Your task to perform on an android device: Open privacy settings Image 0: 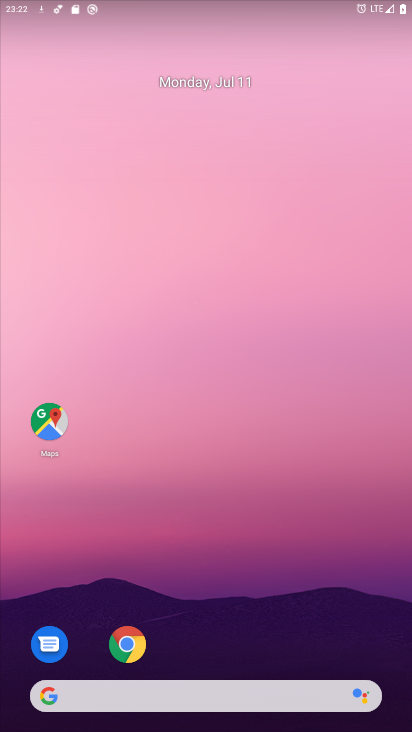
Step 0: drag from (208, 624) to (222, 192)
Your task to perform on an android device: Open privacy settings Image 1: 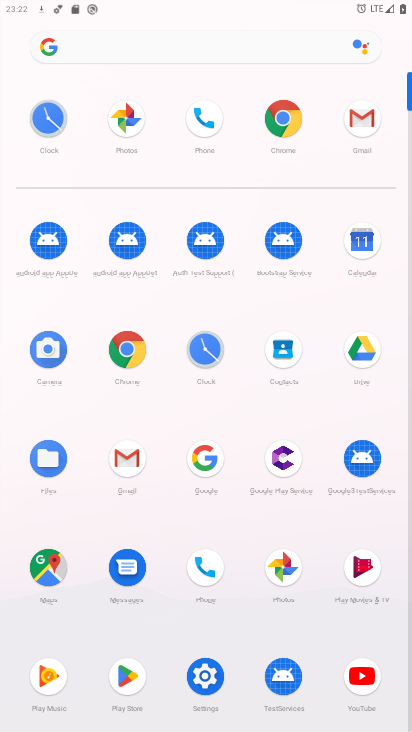
Step 1: click (215, 675)
Your task to perform on an android device: Open privacy settings Image 2: 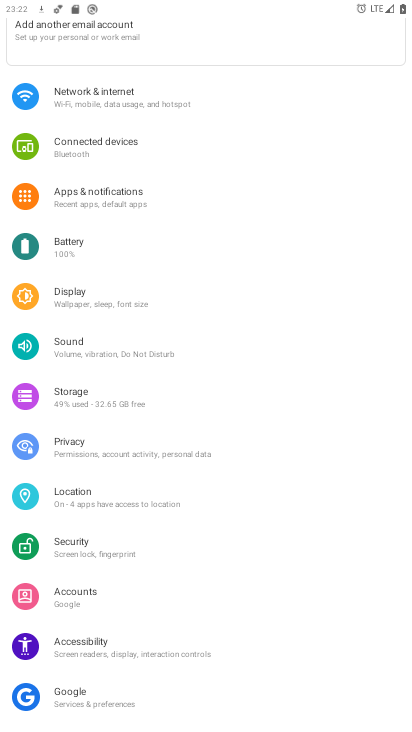
Step 2: click (80, 442)
Your task to perform on an android device: Open privacy settings Image 3: 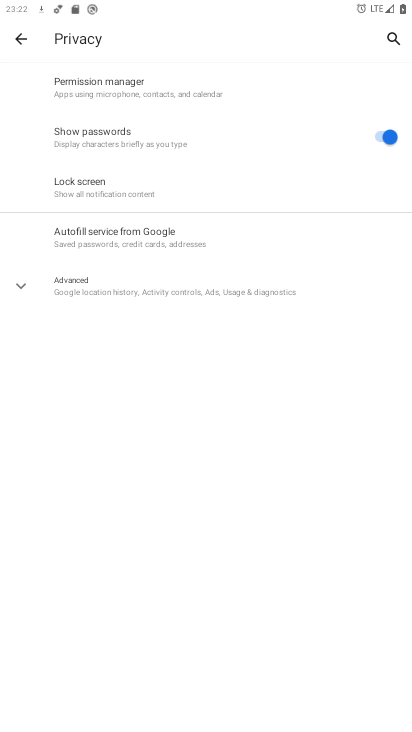
Step 3: task complete